Your task to perform on an android device: open chrome privacy settings Image 0: 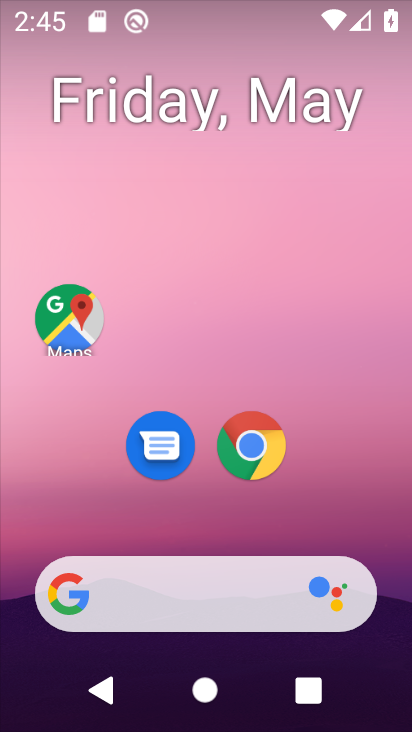
Step 0: drag from (194, 530) to (232, 141)
Your task to perform on an android device: open chrome privacy settings Image 1: 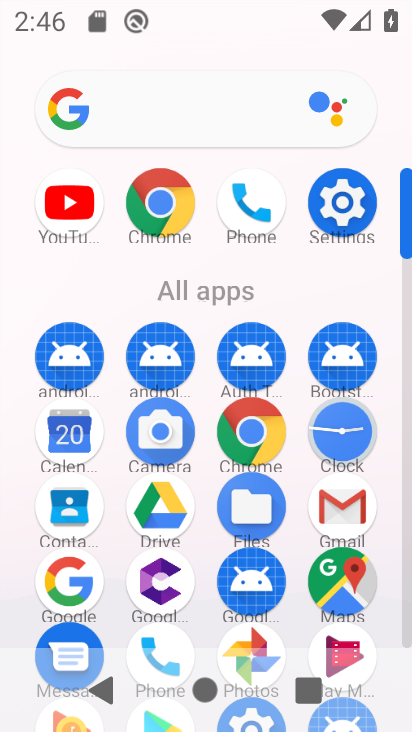
Step 1: click (147, 218)
Your task to perform on an android device: open chrome privacy settings Image 2: 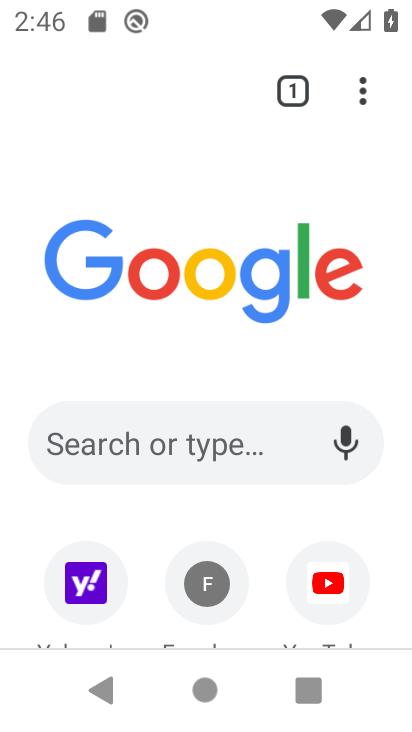
Step 2: click (357, 82)
Your task to perform on an android device: open chrome privacy settings Image 3: 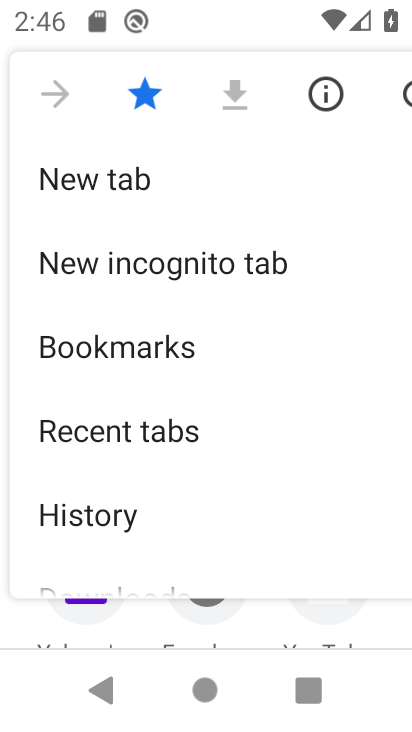
Step 3: drag from (128, 567) to (232, 24)
Your task to perform on an android device: open chrome privacy settings Image 4: 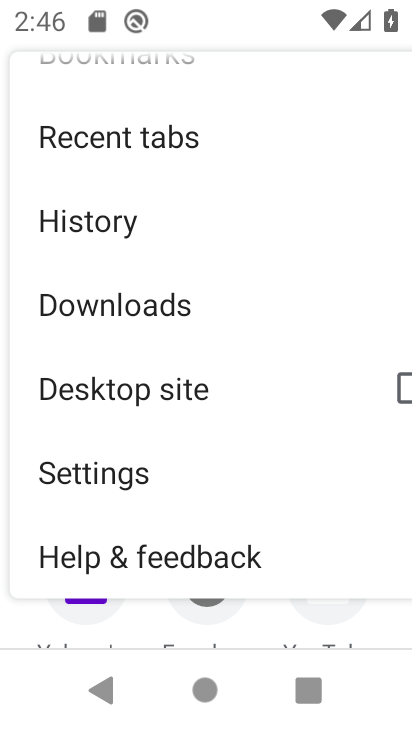
Step 4: click (114, 502)
Your task to perform on an android device: open chrome privacy settings Image 5: 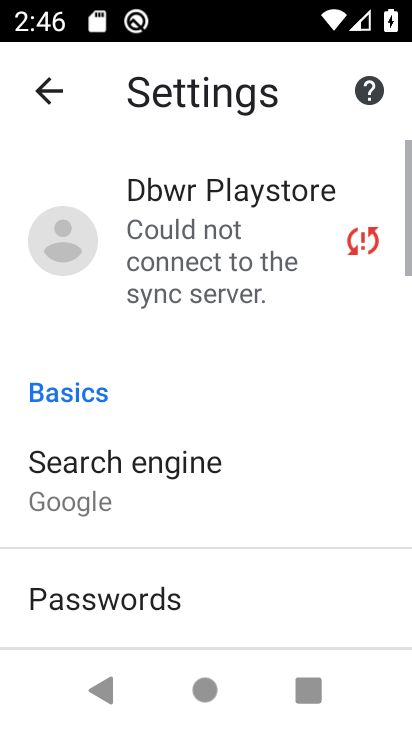
Step 5: drag from (127, 496) to (224, 19)
Your task to perform on an android device: open chrome privacy settings Image 6: 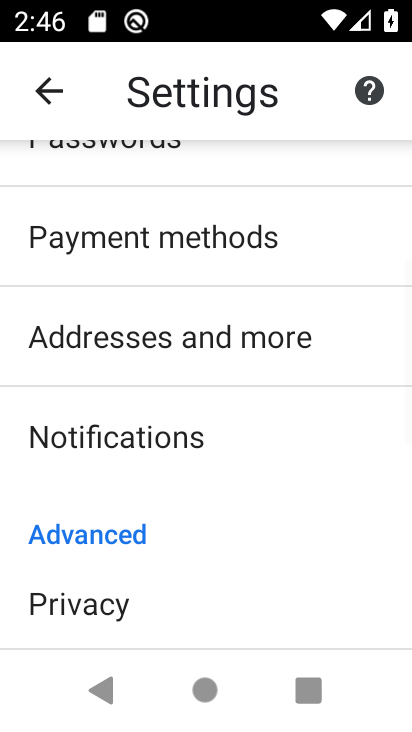
Step 6: drag from (196, 555) to (248, 16)
Your task to perform on an android device: open chrome privacy settings Image 7: 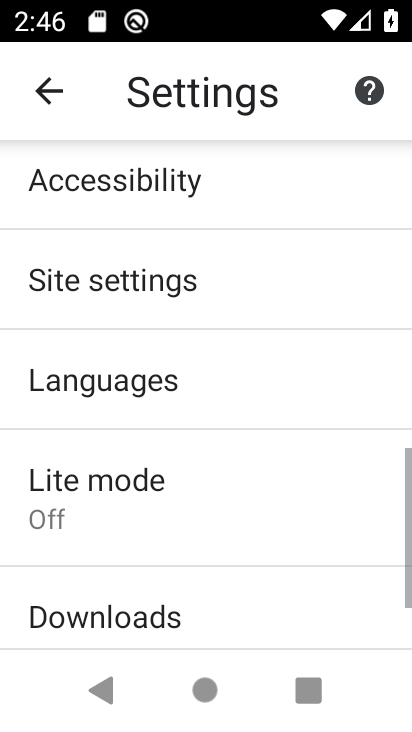
Step 7: drag from (144, 603) to (233, 155)
Your task to perform on an android device: open chrome privacy settings Image 8: 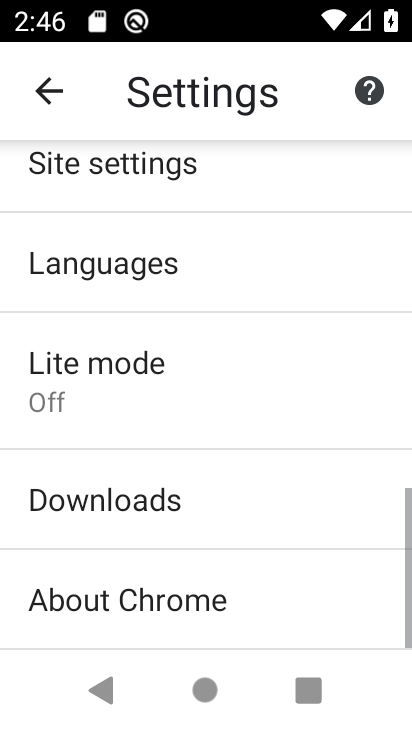
Step 8: drag from (189, 620) to (249, 277)
Your task to perform on an android device: open chrome privacy settings Image 9: 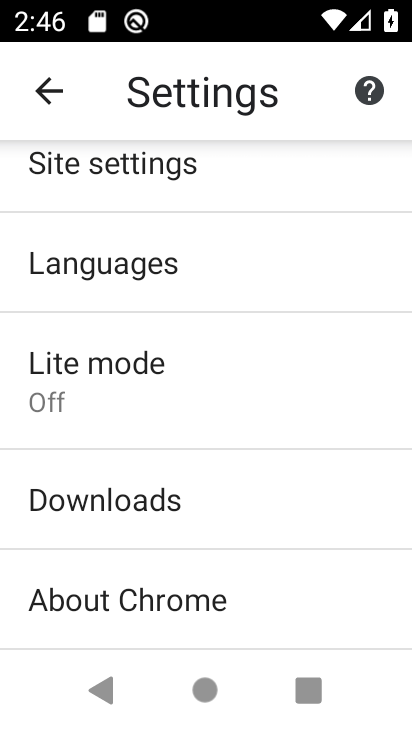
Step 9: drag from (215, 184) to (297, 594)
Your task to perform on an android device: open chrome privacy settings Image 10: 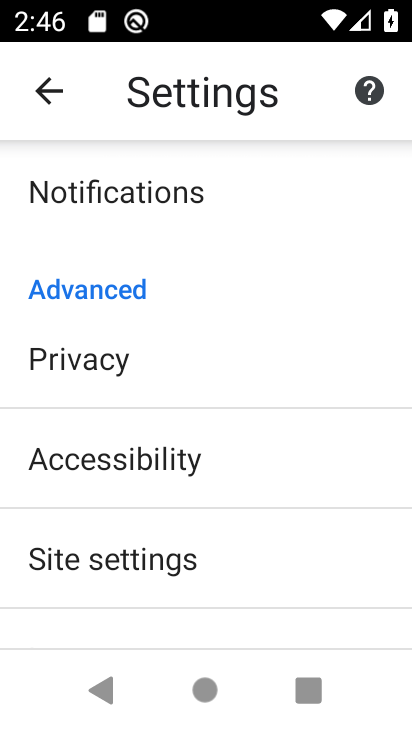
Step 10: click (127, 374)
Your task to perform on an android device: open chrome privacy settings Image 11: 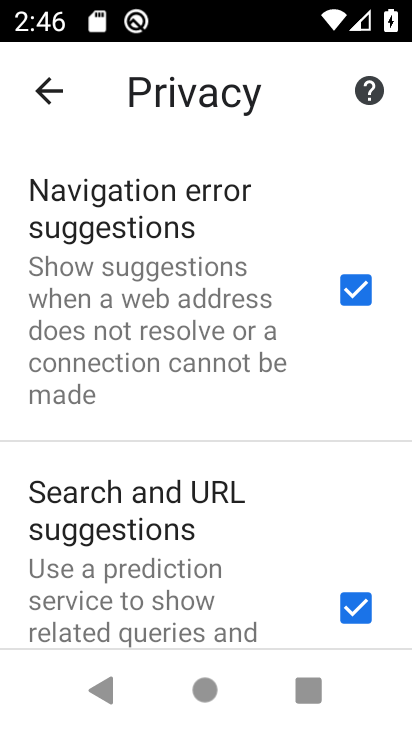
Step 11: task complete